Your task to perform on an android device: Go to network settings Image 0: 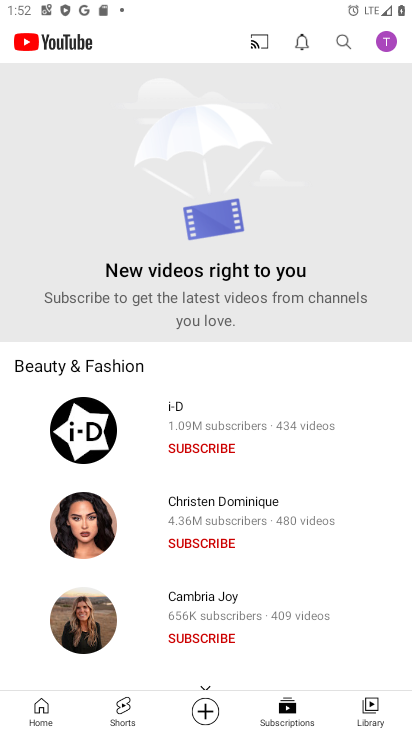
Step 0: press home button
Your task to perform on an android device: Go to network settings Image 1: 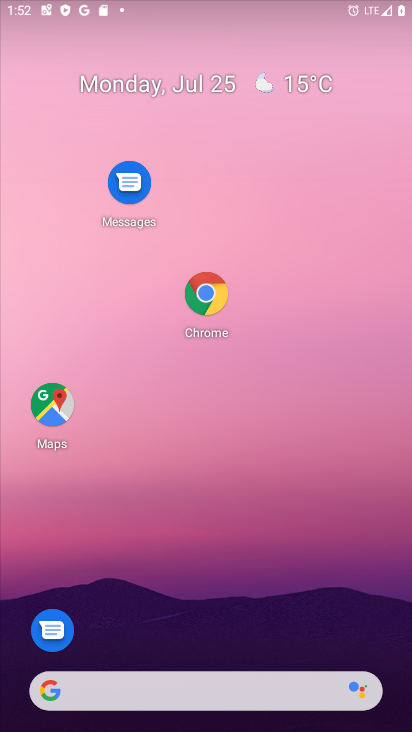
Step 1: drag from (316, 607) to (374, 89)
Your task to perform on an android device: Go to network settings Image 2: 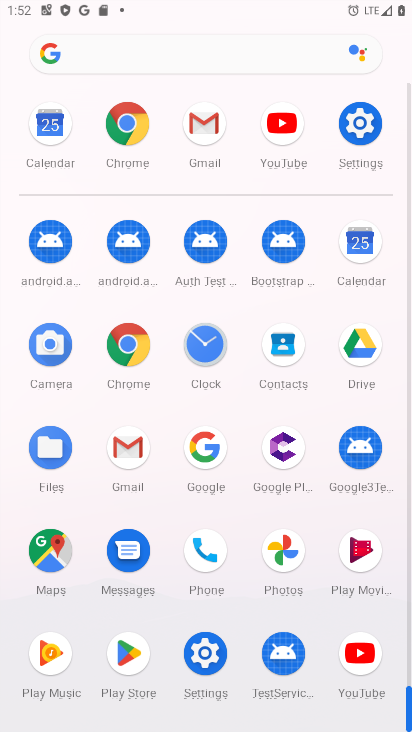
Step 2: click (210, 652)
Your task to perform on an android device: Go to network settings Image 3: 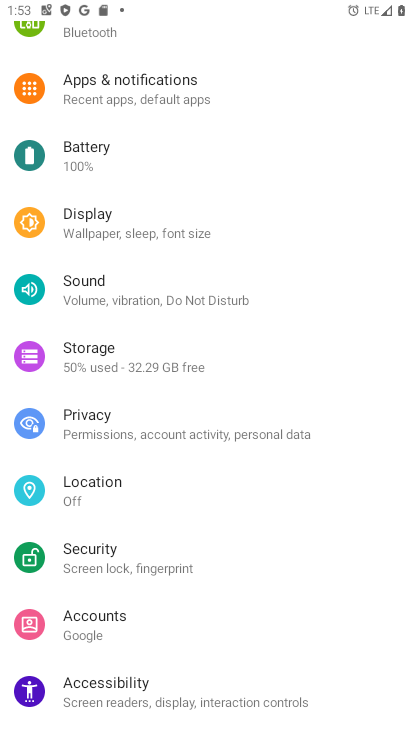
Step 3: drag from (142, 87) to (39, 729)
Your task to perform on an android device: Go to network settings Image 4: 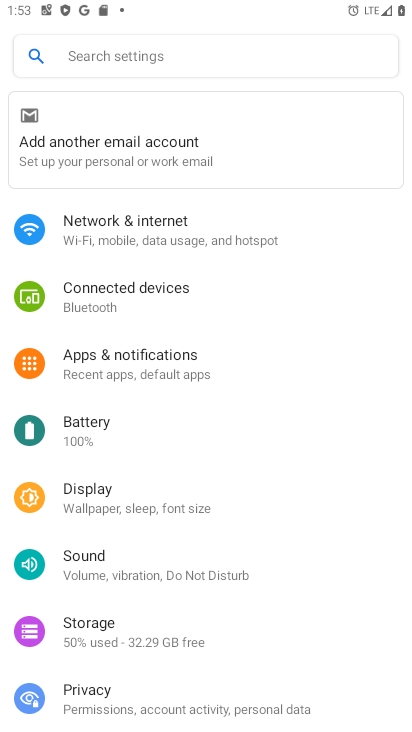
Step 4: click (118, 219)
Your task to perform on an android device: Go to network settings Image 5: 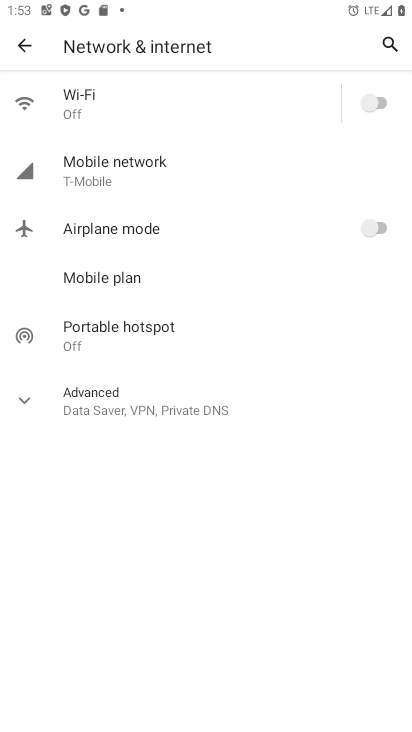
Step 5: task complete